Your task to perform on an android device: See recent photos Image 0: 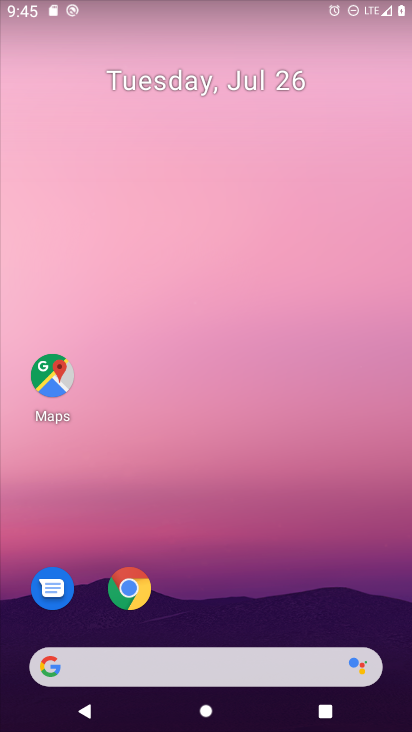
Step 0: drag from (195, 663) to (176, 51)
Your task to perform on an android device: See recent photos Image 1: 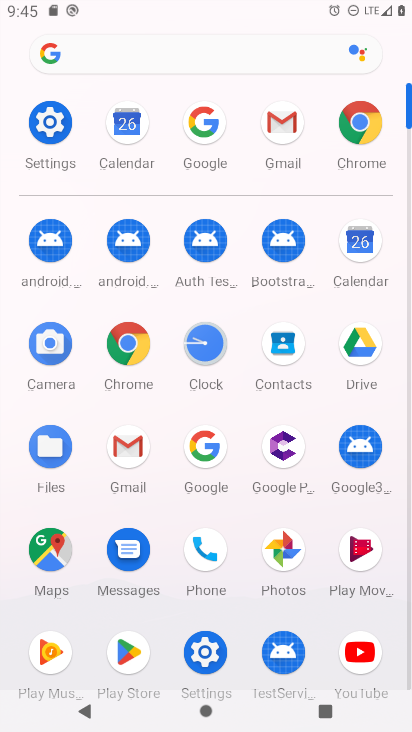
Step 1: click (314, 567)
Your task to perform on an android device: See recent photos Image 2: 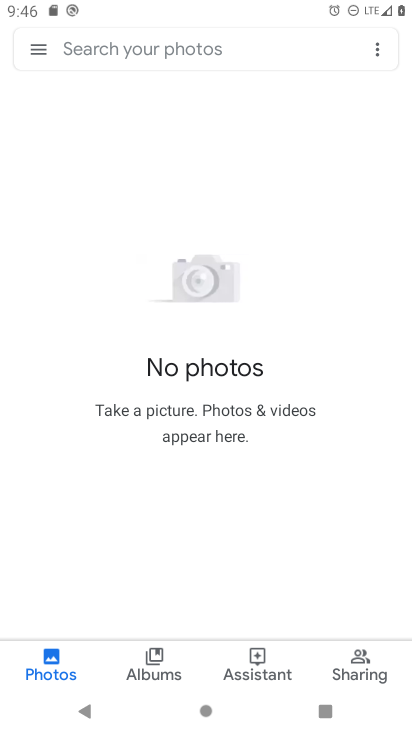
Step 2: task complete